Your task to perform on an android device: Go to calendar. Show me events next week Image 0: 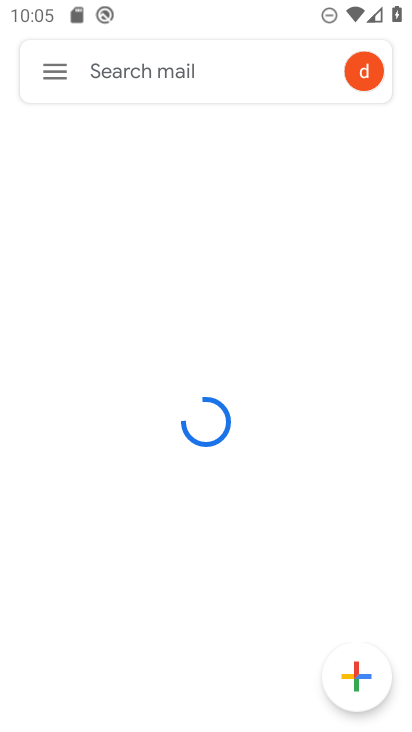
Step 0: press home button
Your task to perform on an android device: Go to calendar. Show me events next week Image 1: 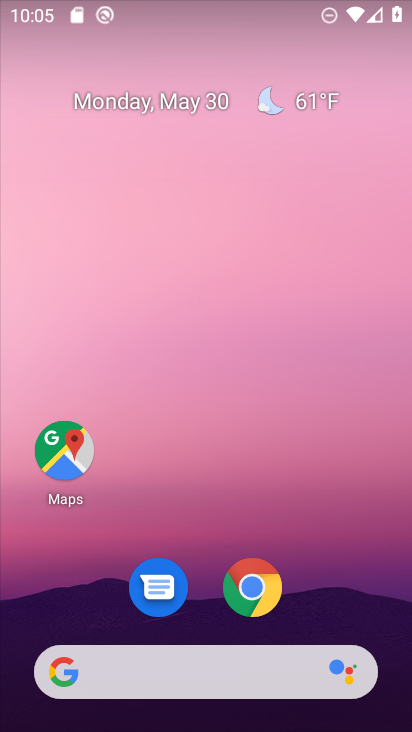
Step 1: drag from (213, 626) to (253, 23)
Your task to perform on an android device: Go to calendar. Show me events next week Image 2: 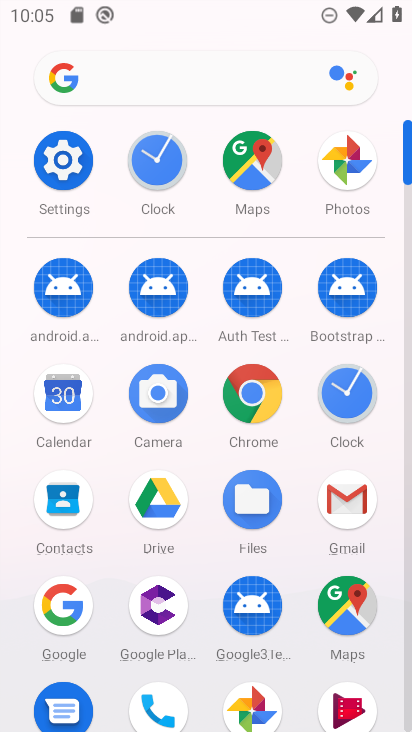
Step 2: click (61, 397)
Your task to perform on an android device: Go to calendar. Show me events next week Image 3: 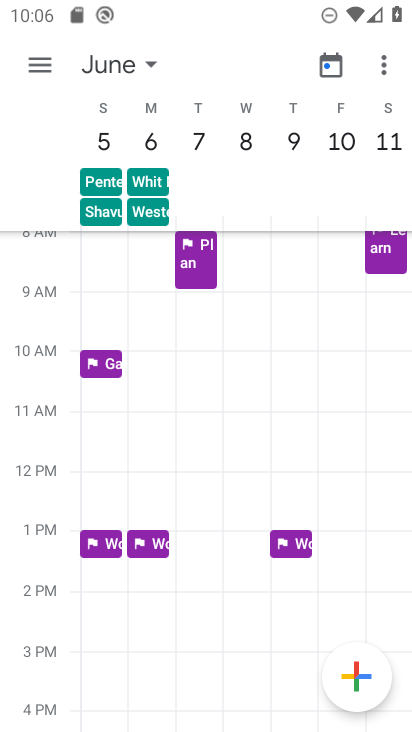
Step 3: task complete